Your task to perform on an android device: Open the Play Movies app and select the watchlist tab. Image 0: 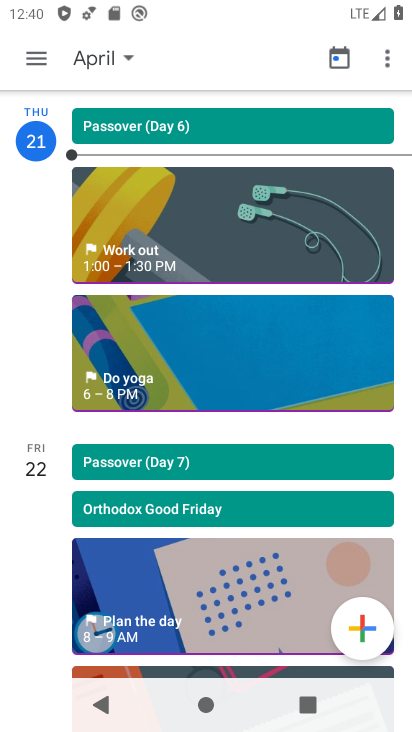
Step 0: press home button
Your task to perform on an android device: Open the Play Movies app and select the watchlist tab. Image 1: 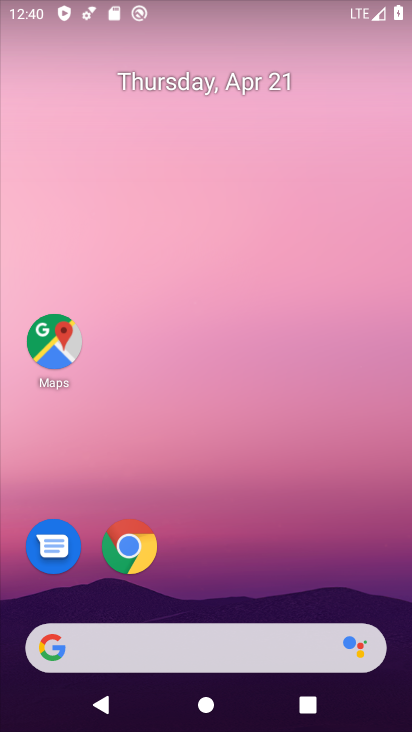
Step 1: drag from (294, 494) to (272, 122)
Your task to perform on an android device: Open the Play Movies app and select the watchlist tab. Image 2: 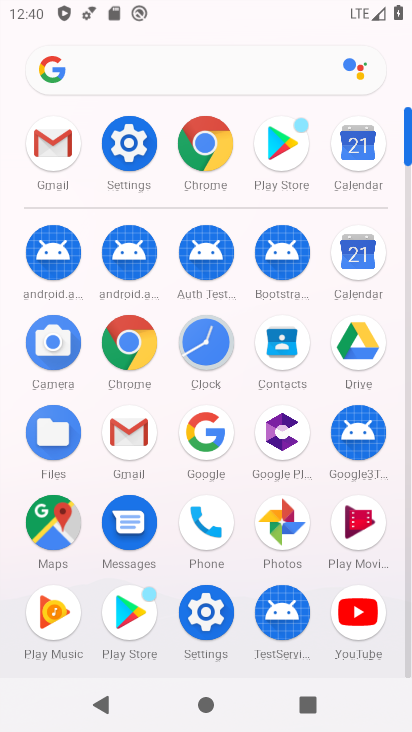
Step 2: drag from (246, 569) to (241, 317)
Your task to perform on an android device: Open the Play Movies app and select the watchlist tab. Image 3: 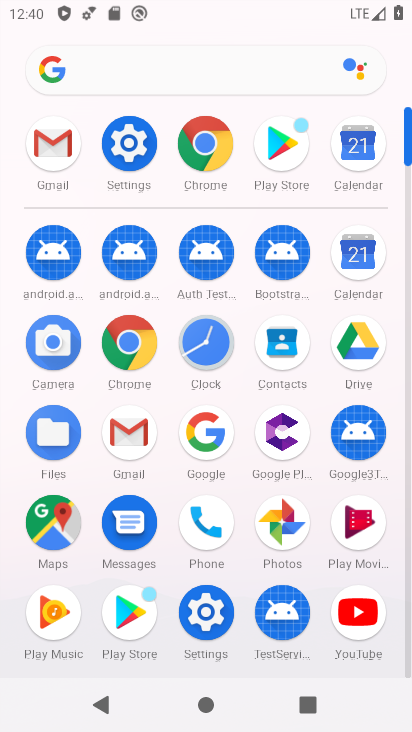
Step 3: click (366, 531)
Your task to perform on an android device: Open the Play Movies app and select the watchlist tab. Image 4: 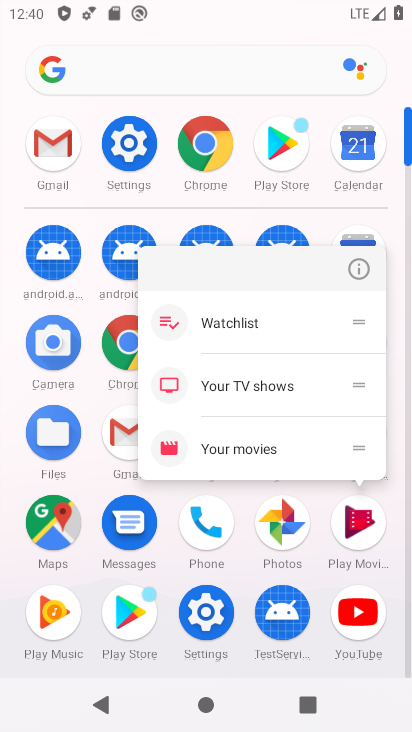
Step 4: click (366, 531)
Your task to perform on an android device: Open the Play Movies app and select the watchlist tab. Image 5: 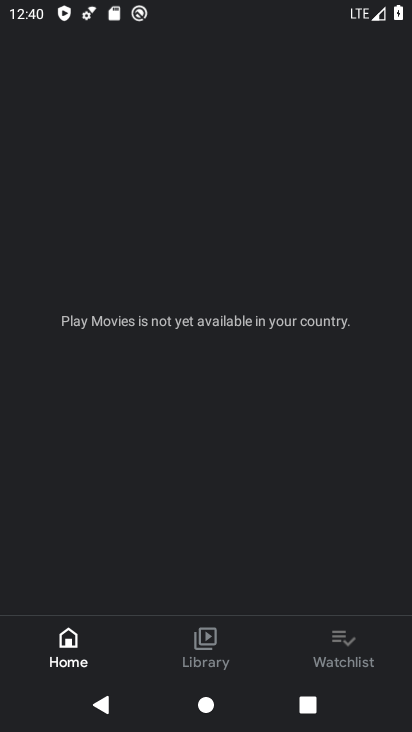
Step 5: click (359, 661)
Your task to perform on an android device: Open the Play Movies app and select the watchlist tab. Image 6: 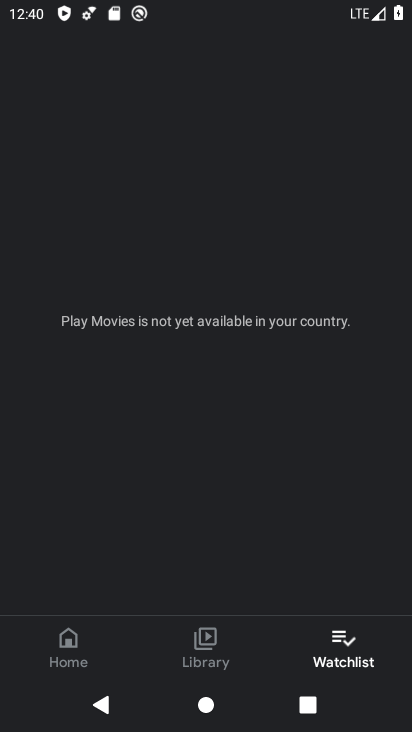
Step 6: task complete